Your task to perform on an android device: turn off wifi Image 0: 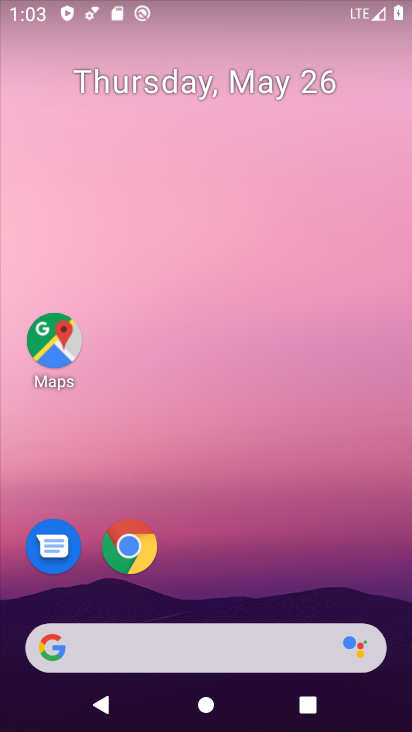
Step 0: drag from (266, 436) to (184, 4)
Your task to perform on an android device: turn off wifi Image 1: 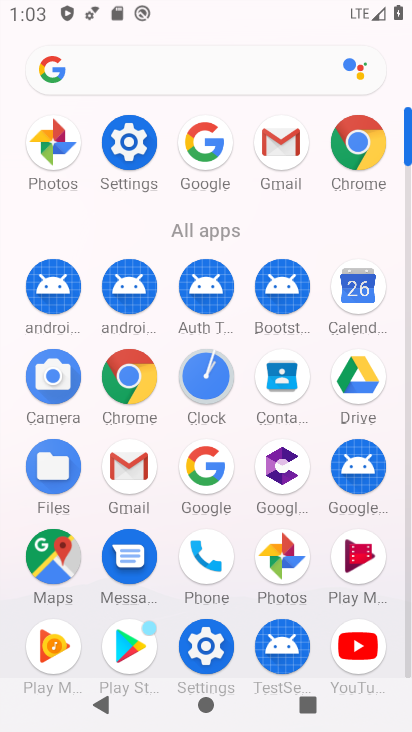
Step 1: click (138, 152)
Your task to perform on an android device: turn off wifi Image 2: 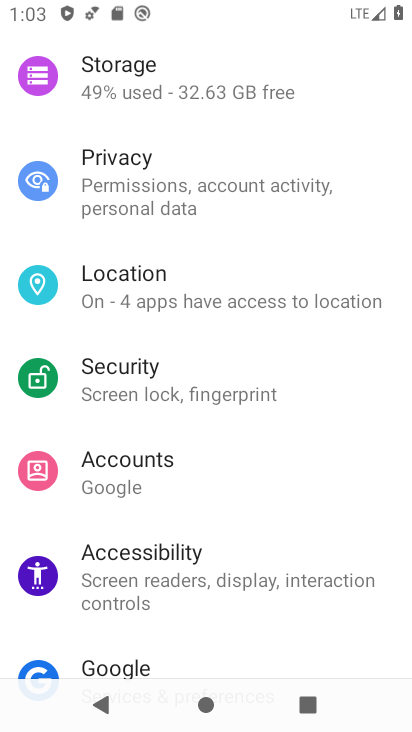
Step 2: drag from (227, 127) to (247, 648)
Your task to perform on an android device: turn off wifi Image 3: 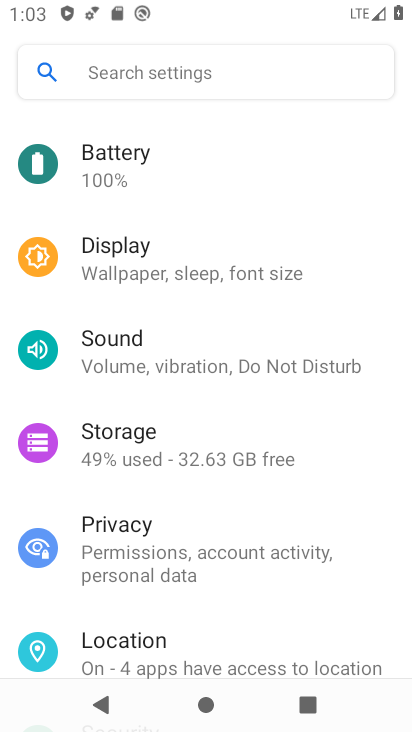
Step 3: drag from (186, 174) to (201, 627)
Your task to perform on an android device: turn off wifi Image 4: 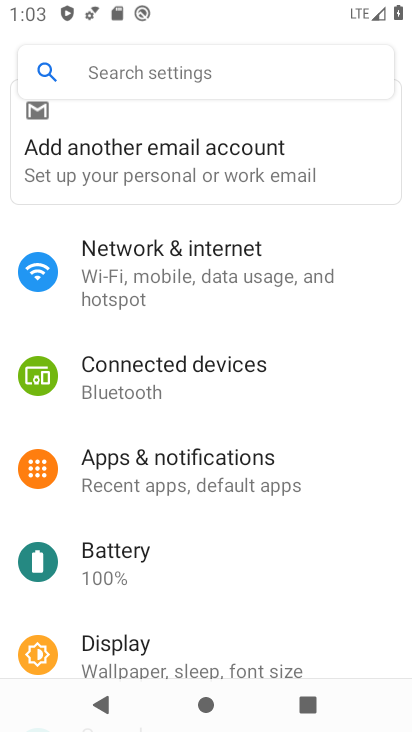
Step 4: click (181, 255)
Your task to perform on an android device: turn off wifi Image 5: 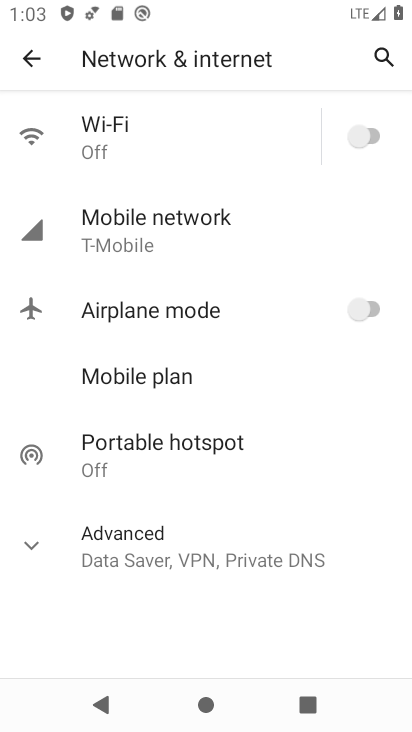
Step 5: task complete